Your task to perform on an android device: open app "NewsBreak: Local News & Alerts" (install if not already installed), go to login, and select forgot password Image 0: 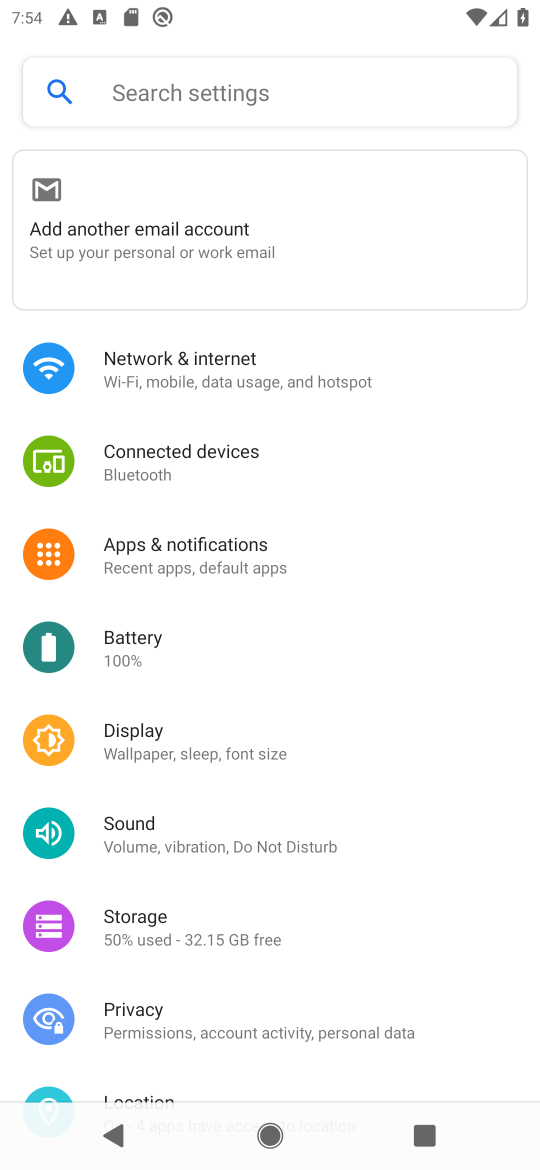
Step 0: press home button
Your task to perform on an android device: open app "NewsBreak: Local News & Alerts" (install if not already installed), go to login, and select forgot password Image 1: 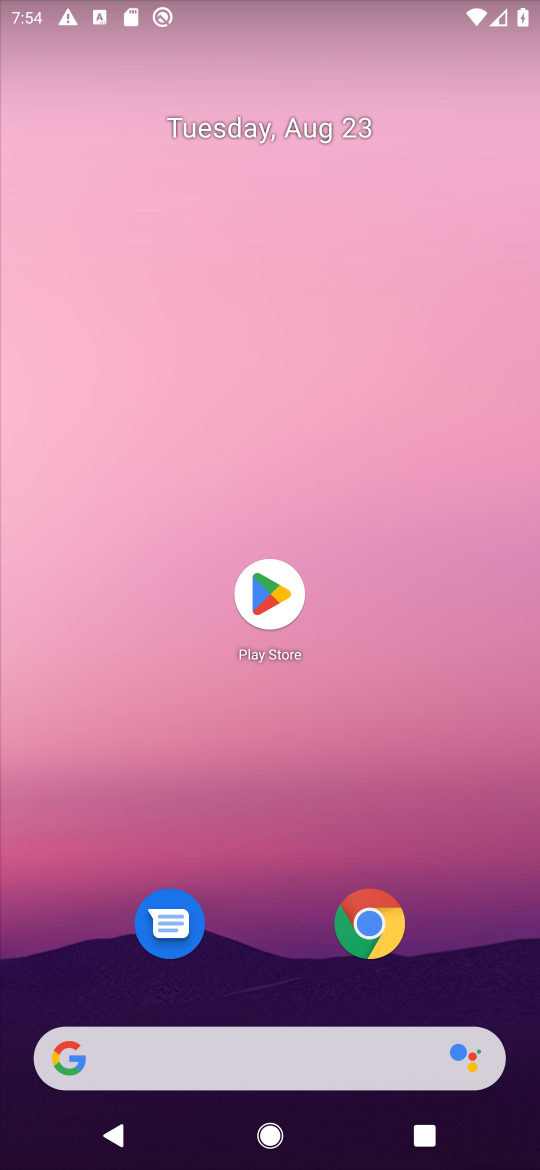
Step 1: click (269, 601)
Your task to perform on an android device: open app "NewsBreak: Local News & Alerts" (install if not already installed), go to login, and select forgot password Image 2: 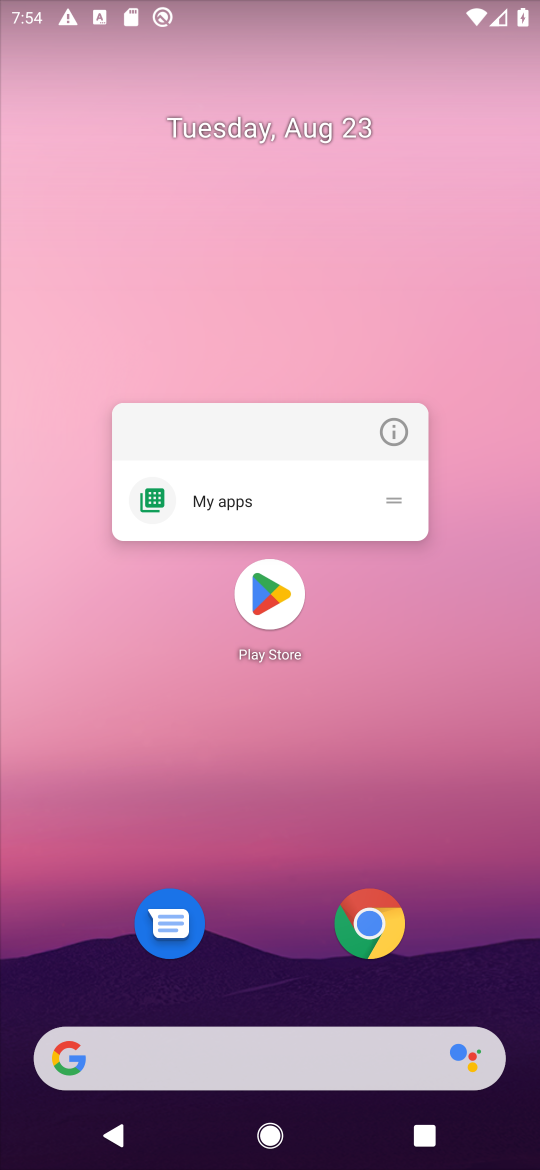
Step 2: click (269, 601)
Your task to perform on an android device: open app "NewsBreak: Local News & Alerts" (install if not already installed), go to login, and select forgot password Image 3: 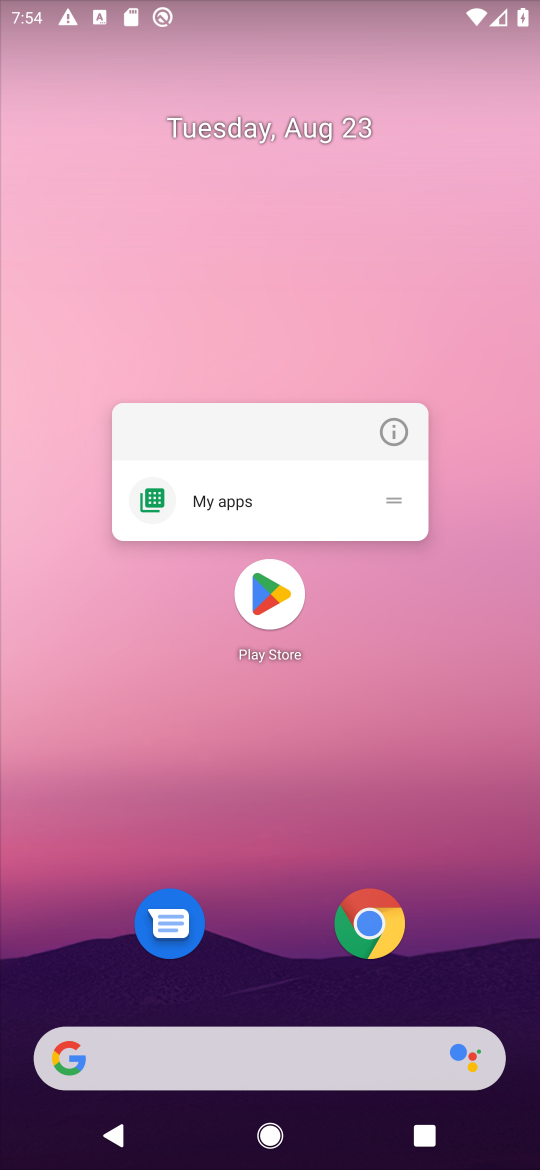
Step 3: click (269, 601)
Your task to perform on an android device: open app "NewsBreak: Local News & Alerts" (install if not already installed), go to login, and select forgot password Image 4: 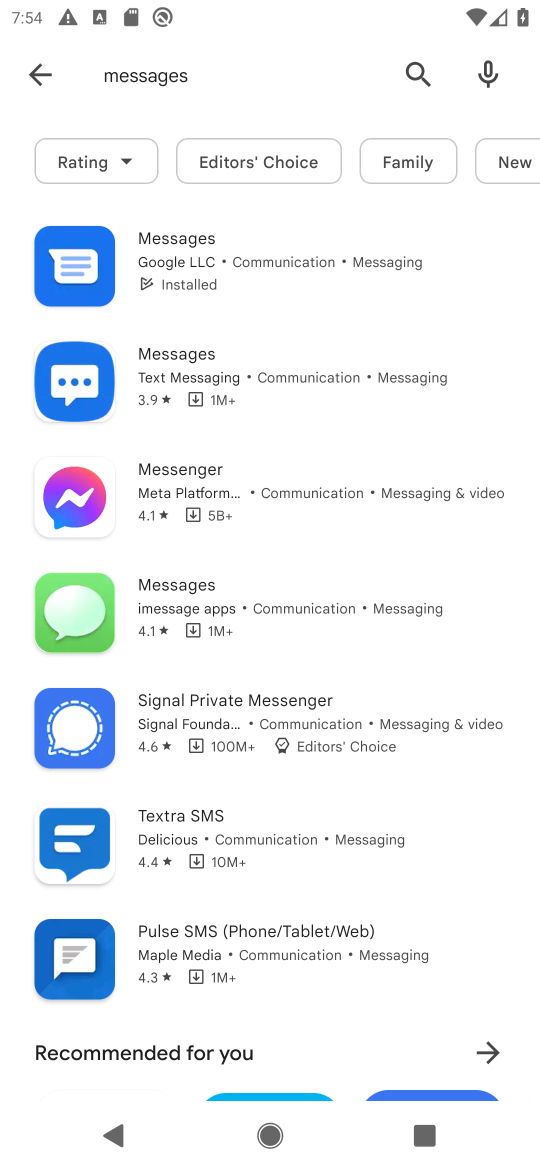
Step 4: click (418, 66)
Your task to perform on an android device: open app "NewsBreak: Local News & Alerts" (install if not already installed), go to login, and select forgot password Image 5: 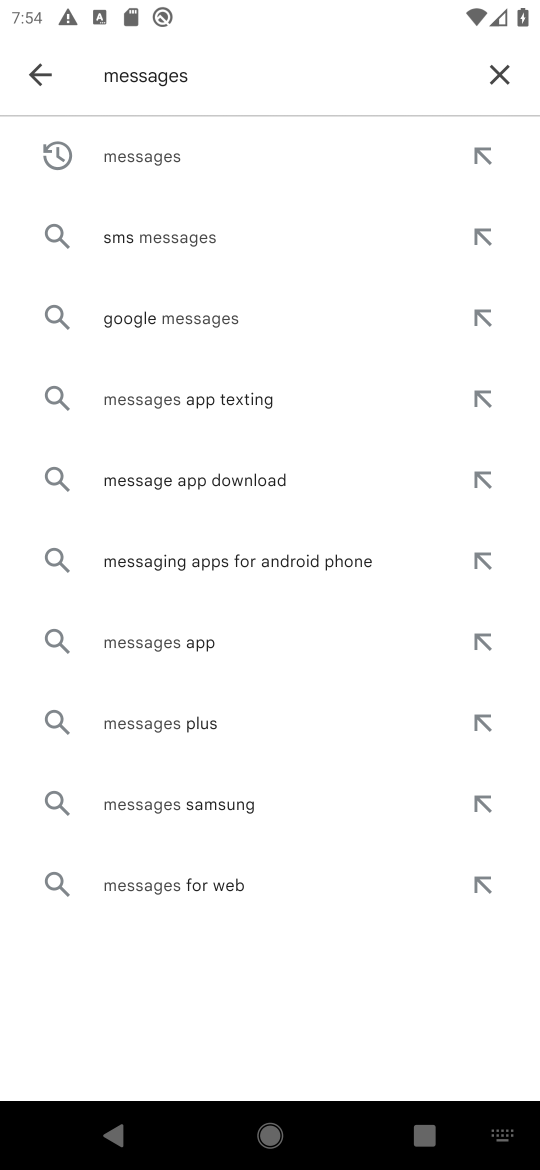
Step 5: click (493, 75)
Your task to perform on an android device: open app "NewsBreak: Local News & Alerts" (install if not already installed), go to login, and select forgot password Image 6: 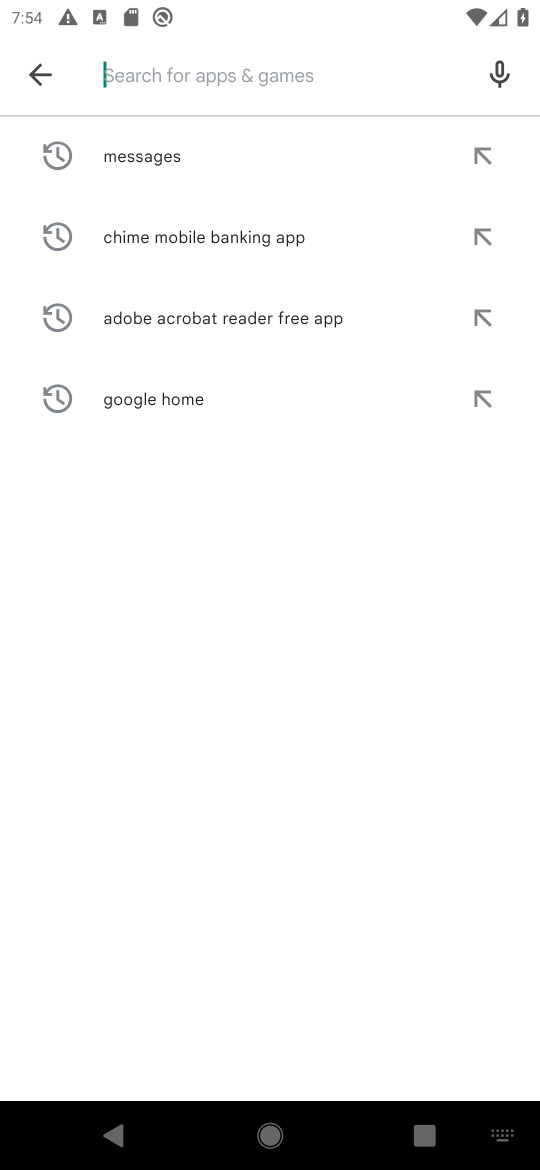
Step 6: type "NewsBreak: Local News & Alerts"
Your task to perform on an android device: open app "NewsBreak: Local News & Alerts" (install if not already installed), go to login, and select forgot password Image 7: 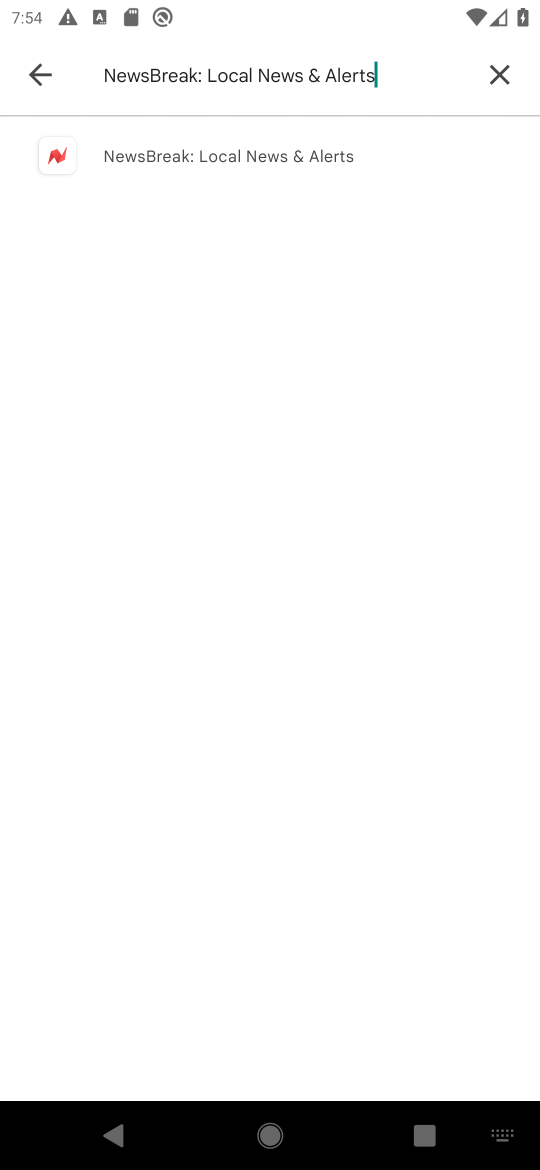
Step 7: click (214, 160)
Your task to perform on an android device: open app "NewsBreak: Local News & Alerts" (install if not already installed), go to login, and select forgot password Image 8: 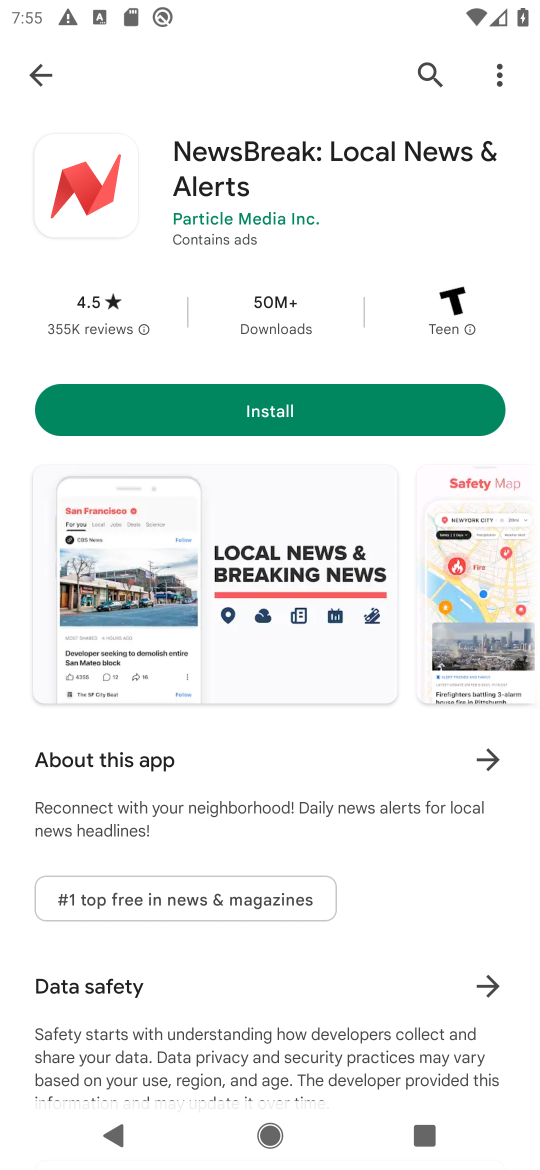
Step 8: click (264, 409)
Your task to perform on an android device: open app "NewsBreak: Local News & Alerts" (install if not already installed), go to login, and select forgot password Image 9: 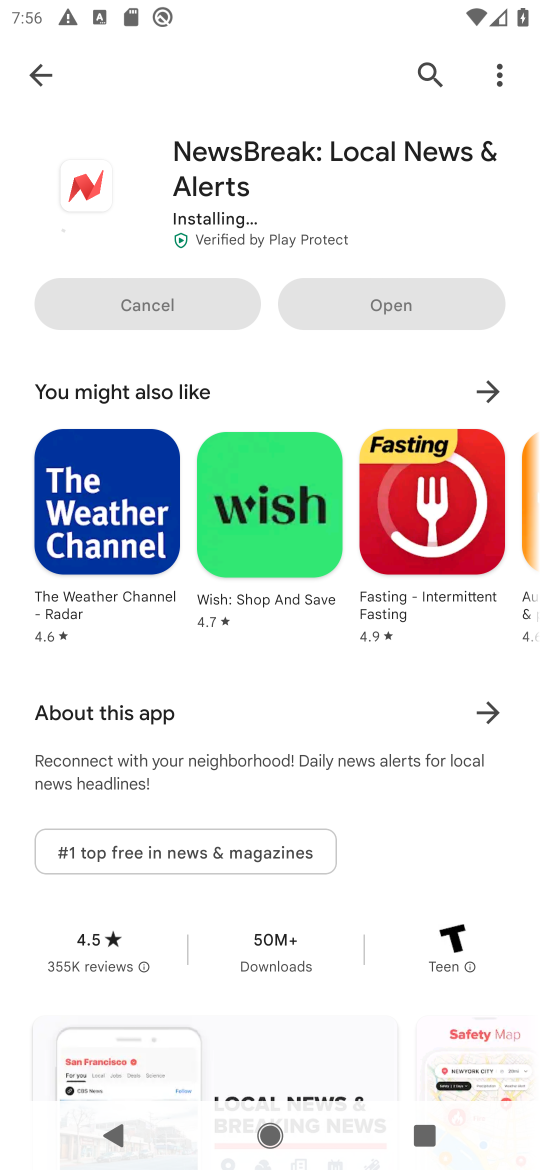
Step 9: press home button
Your task to perform on an android device: open app "NewsBreak: Local News & Alerts" (install if not already installed), go to login, and select forgot password Image 10: 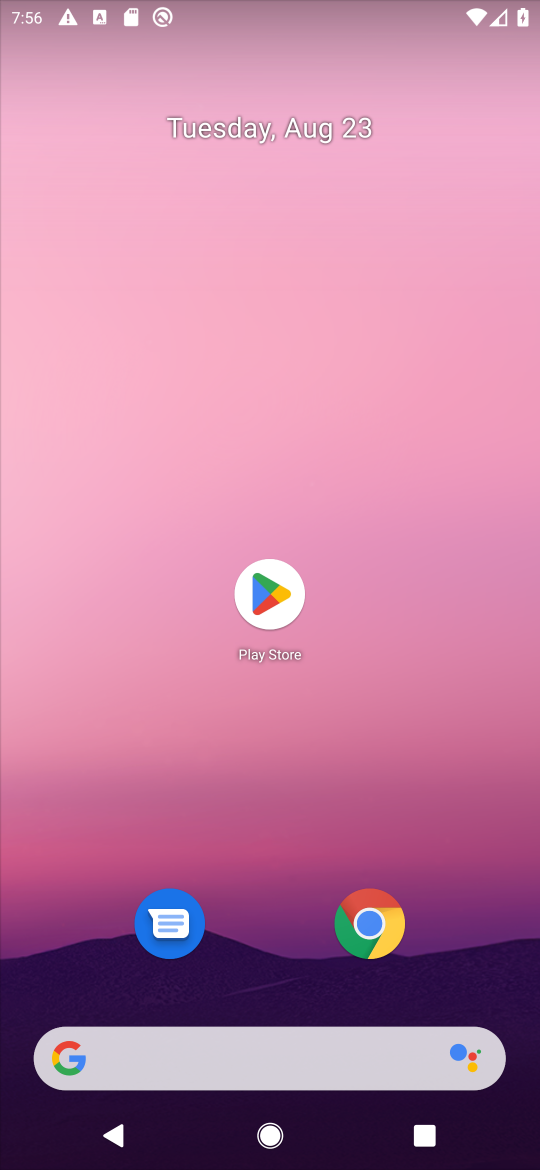
Step 10: click (281, 587)
Your task to perform on an android device: open app "NewsBreak: Local News & Alerts" (install if not already installed), go to login, and select forgot password Image 11: 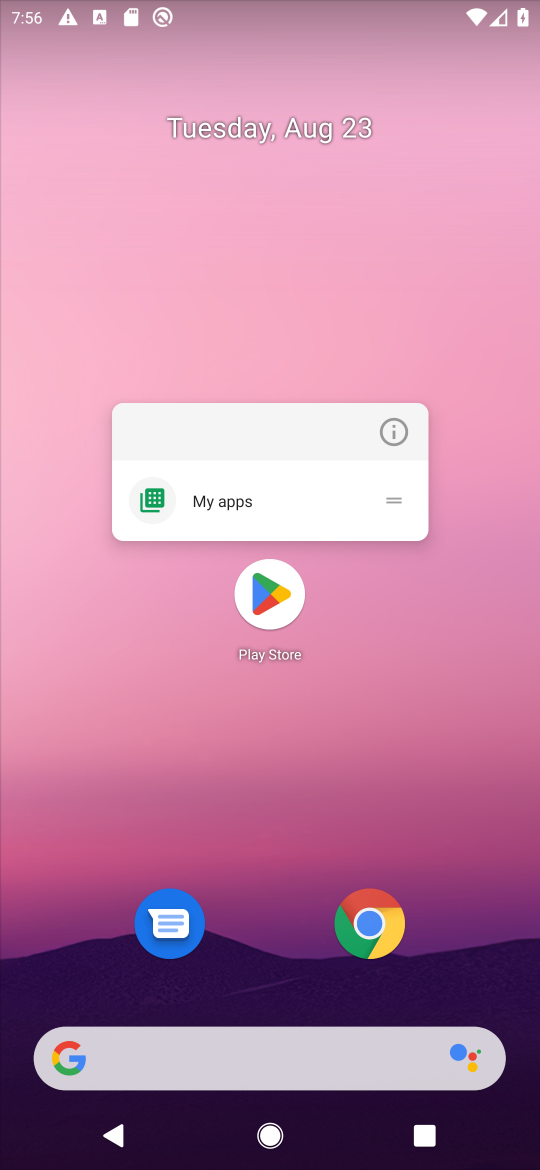
Step 11: click (272, 598)
Your task to perform on an android device: open app "NewsBreak: Local News & Alerts" (install if not already installed), go to login, and select forgot password Image 12: 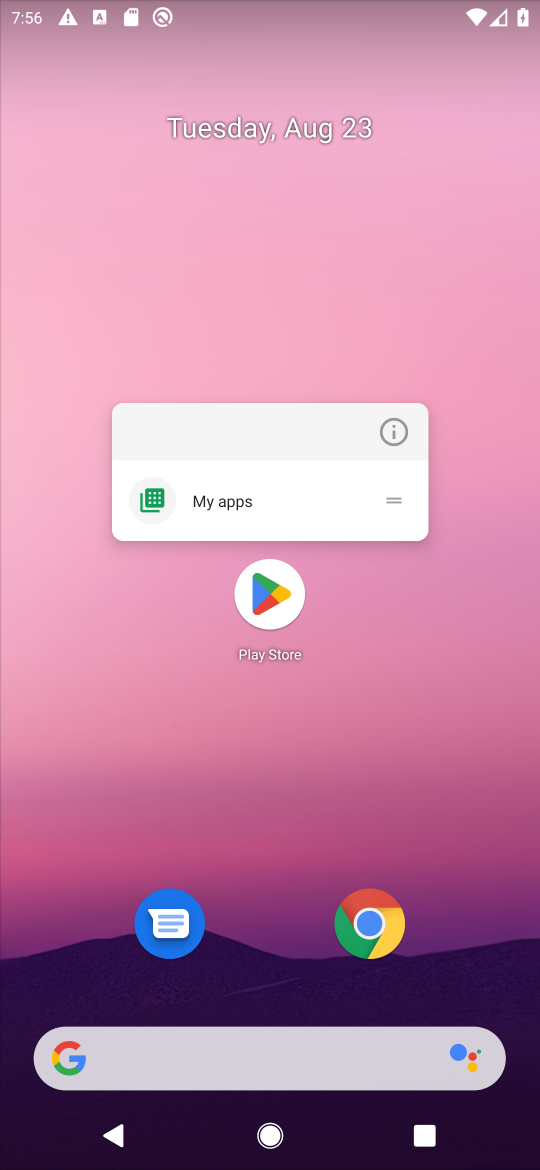
Step 12: click (267, 601)
Your task to perform on an android device: open app "NewsBreak: Local News & Alerts" (install if not already installed), go to login, and select forgot password Image 13: 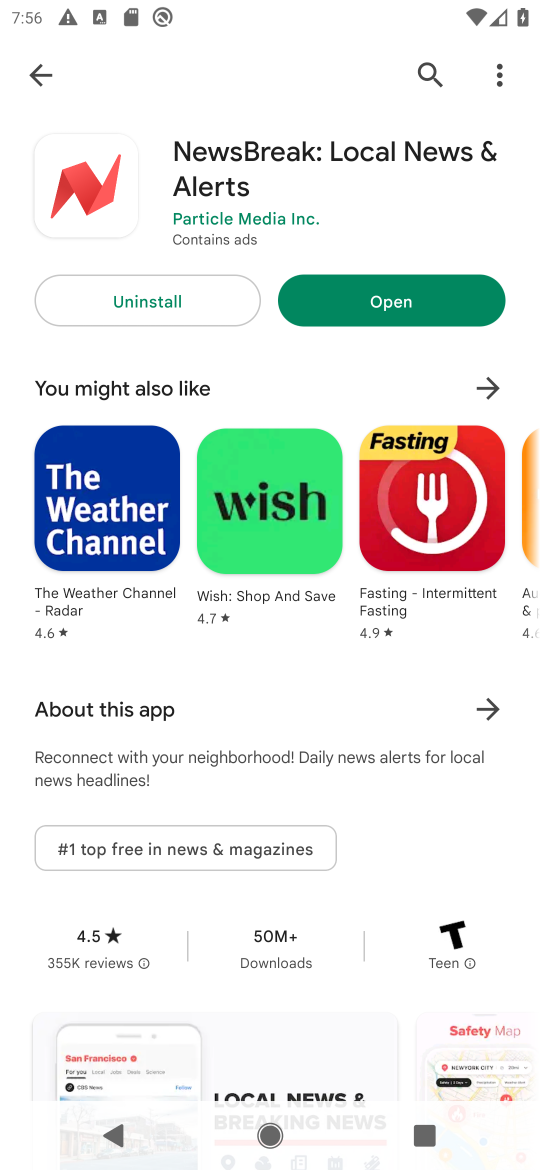
Step 13: click (405, 309)
Your task to perform on an android device: open app "NewsBreak: Local News & Alerts" (install if not already installed), go to login, and select forgot password Image 14: 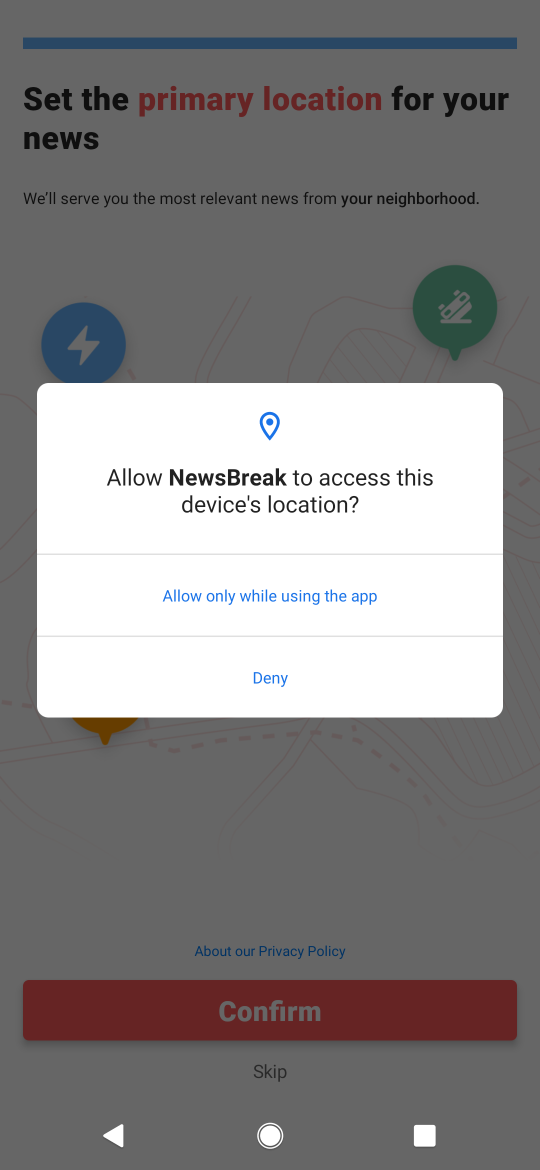
Step 14: click (278, 610)
Your task to perform on an android device: open app "NewsBreak: Local News & Alerts" (install if not already installed), go to login, and select forgot password Image 15: 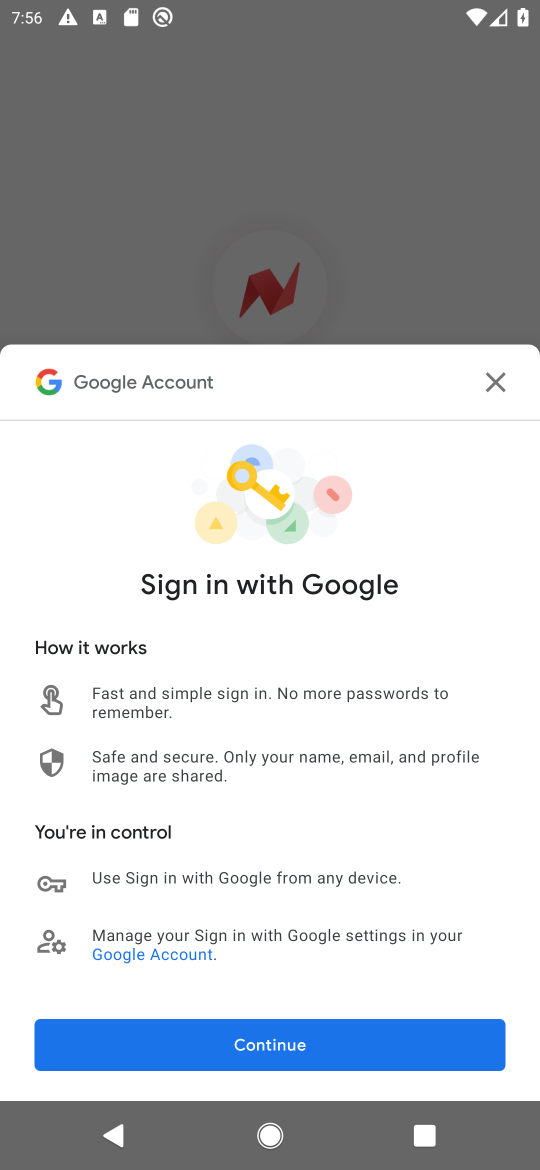
Step 15: task complete